Your task to perform on an android device: Set the phone to "Do not disturb". Image 0: 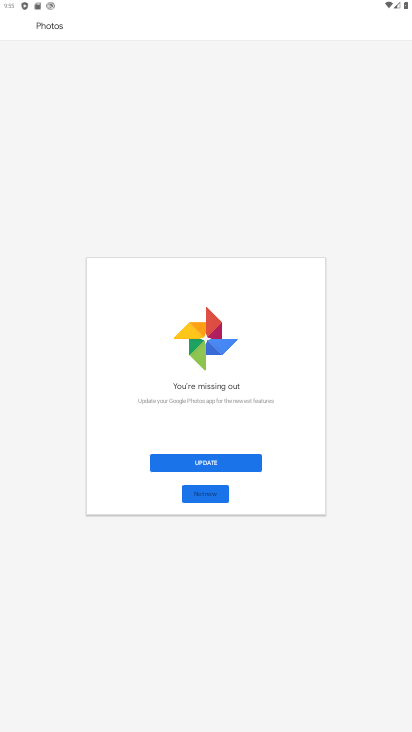
Step 0: press home button
Your task to perform on an android device: Set the phone to "Do not disturb". Image 1: 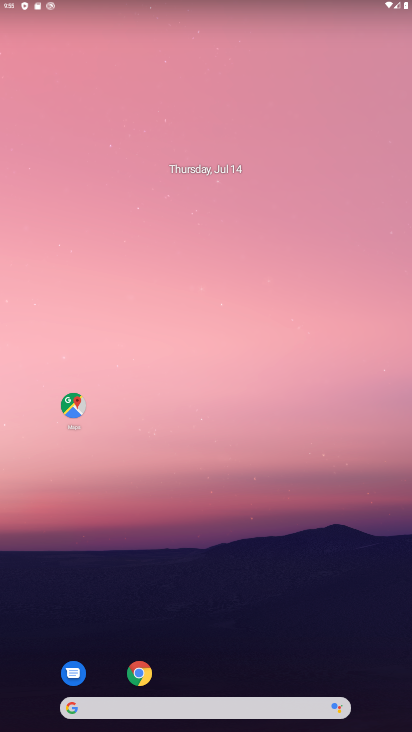
Step 1: drag from (217, 577) to (191, 13)
Your task to perform on an android device: Set the phone to "Do not disturb". Image 2: 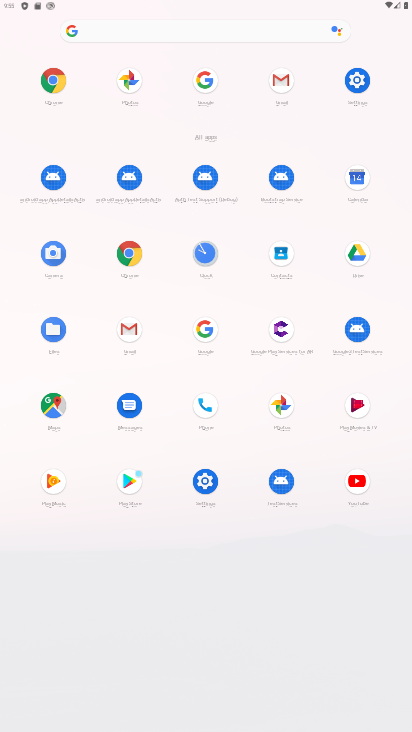
Step 2: click (359, 72)
Your task to perform on an android device: Set the phone to "Do not disturb". Image 3: 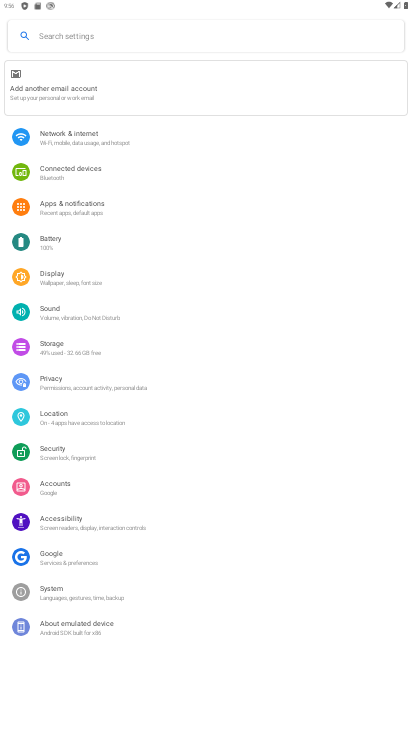
Step 3: drag from (202, 399) to (13, 245)
Your task to perform on an android device: Set the phone to "Do not disturb". Image 4: 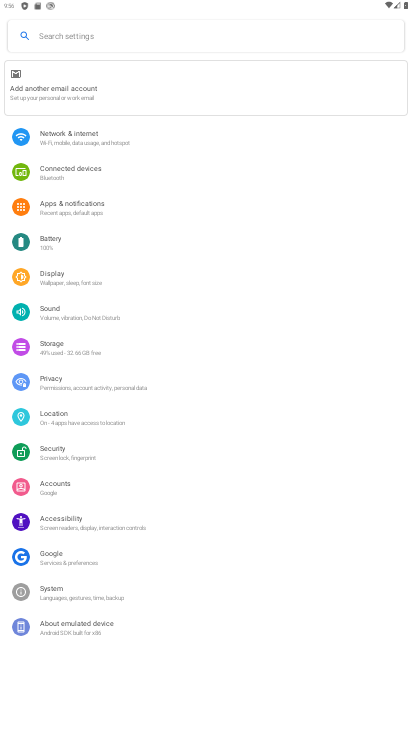
Step 4: click (53, 304)
Your task to perform on an android device: Set the phone to "Do not disturb". Image 5: 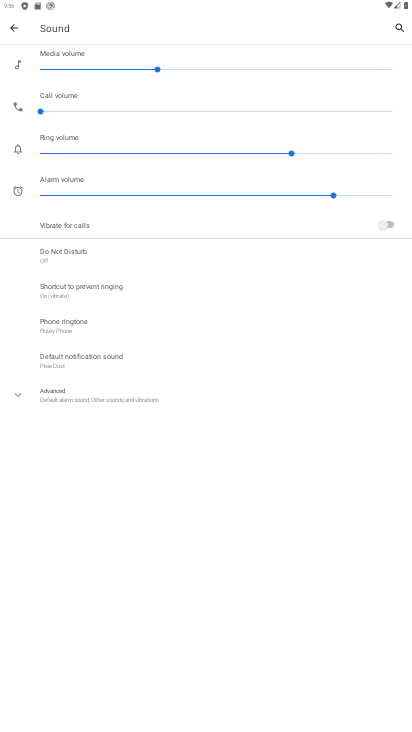
Step 5: click (39, 257)
Your task to perform on an android device: Set the phone to "Do not disturb". Image 6: 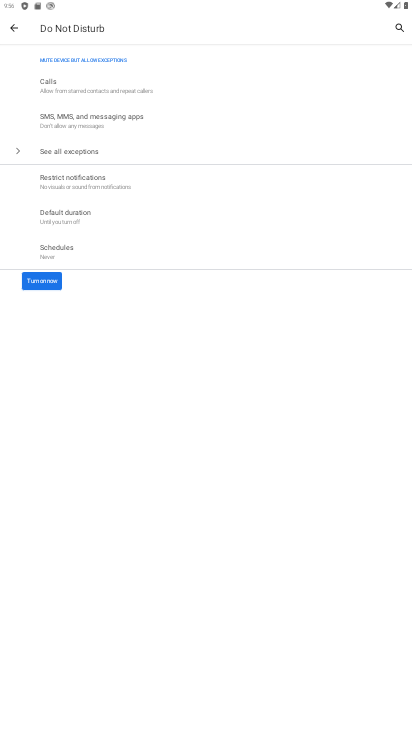
Step 6: click (38, 282)
Your task to perform on an android device: Set the phone to "Do not disturb". Image 7: 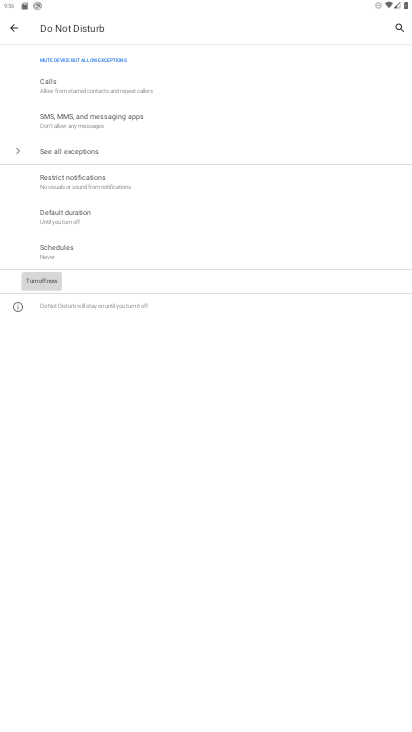
Step 7: task complete